Your task to perform on an android device: make emails show in primary in the gmail app Image 0: 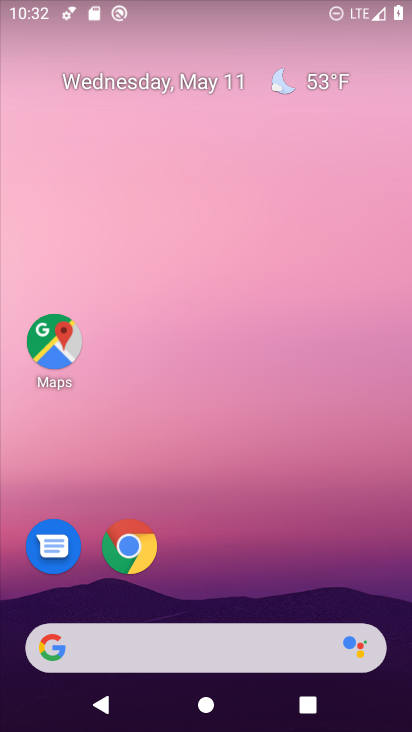
Step 0: drag from (395, 655) to (310, 86)
Your task to perform on an android device: make emails show in primary in the gmail app Image 1: 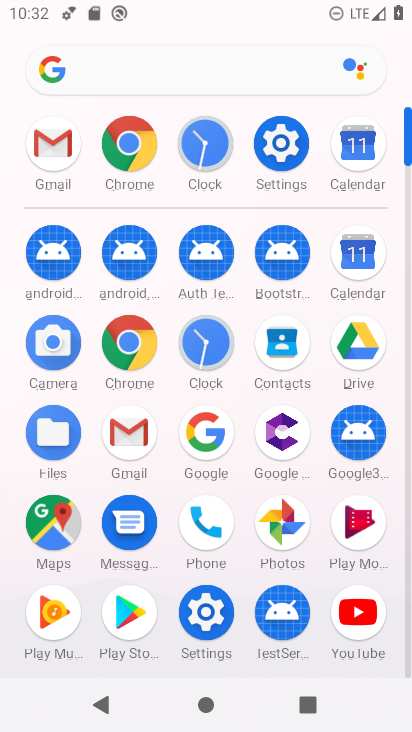
Step 1: click (134, 461)
Your task to perform on an android device: make emails show in primary in the gmail app Image 2: 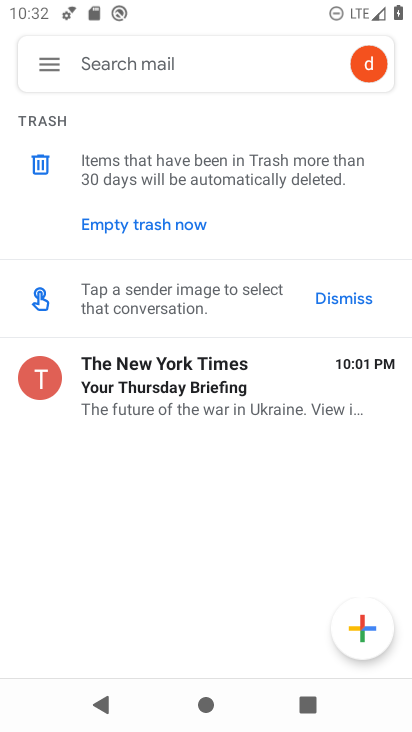
Step 2: click (69, 78)
Your task to perform on an android device: make emails show in primary in the gmail app Image 3: 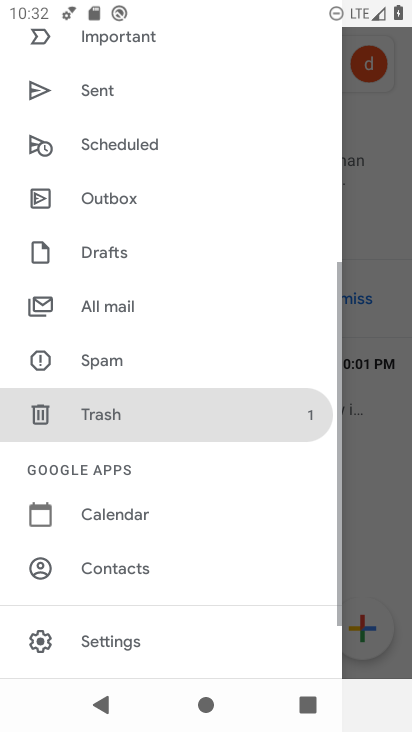
Step 3: drag from (108, 136) to (108, 618)
Your task to perform on an android device: make emails show in primary in the gmail app Image 4: 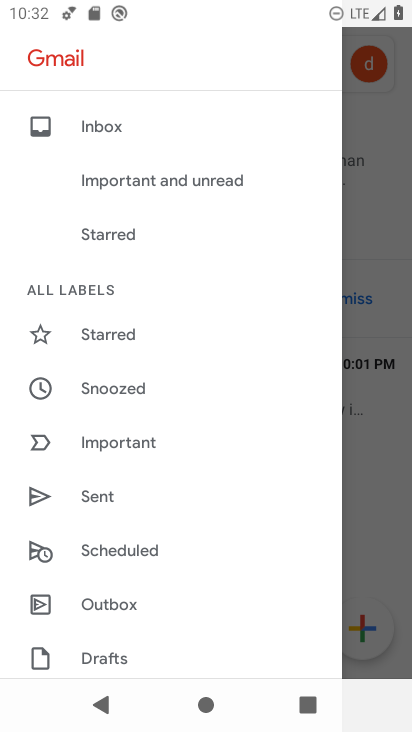
Step 4: click (159, 138)
Your task to perform on an android device: make emails show in primary in the gmail app Image 5: 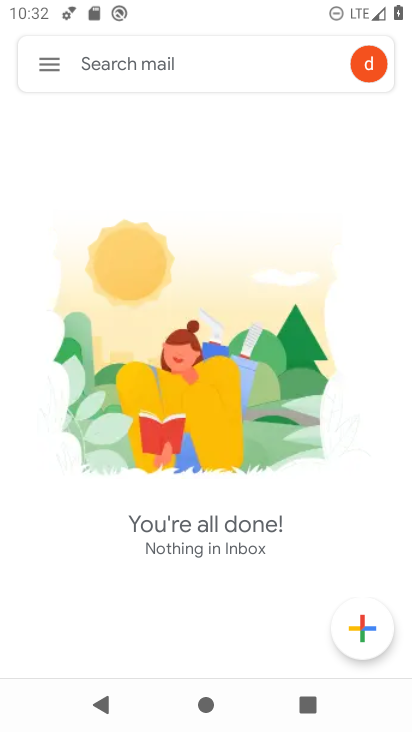
Step 5: task complete